Your task to perform on an android device: Open the stopwatch Image 0: 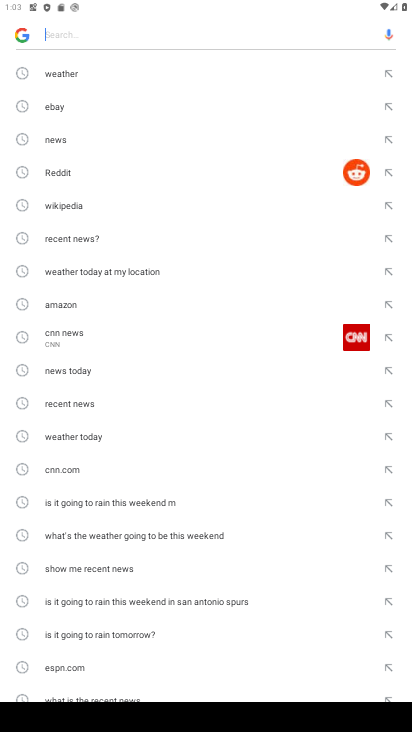
Step 0: press home button
Your task to perform on an android device: Open the stopwatch Image 1: 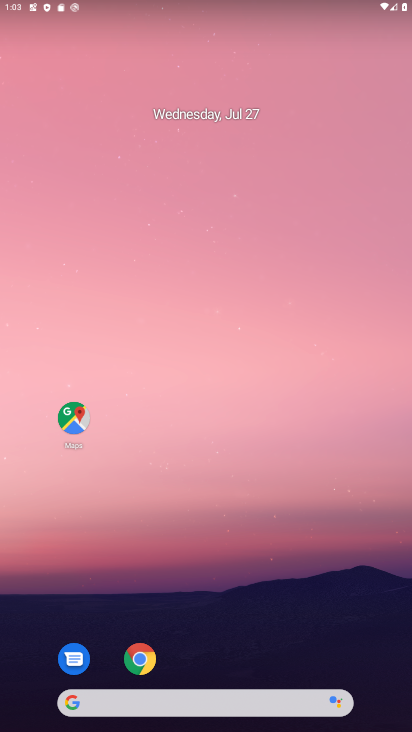
Step 1: drag from (210, 662) to (214, 78)
Your task to perform on an android device: Open the stopwatch Image 2: 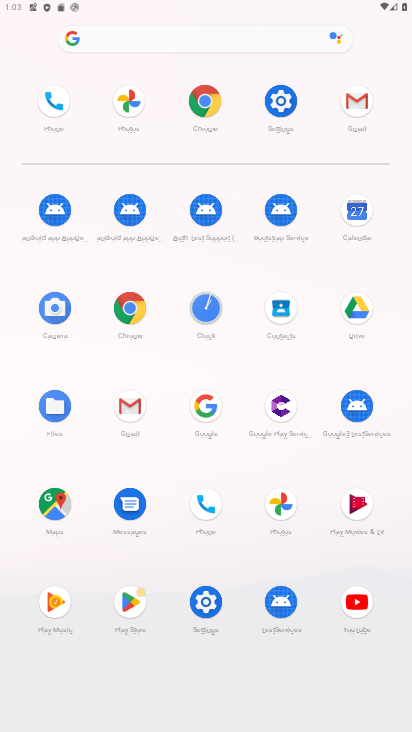
Step 2: click (209, 307)
Your task to perform on an android device: Open the stopwatch Image 3: 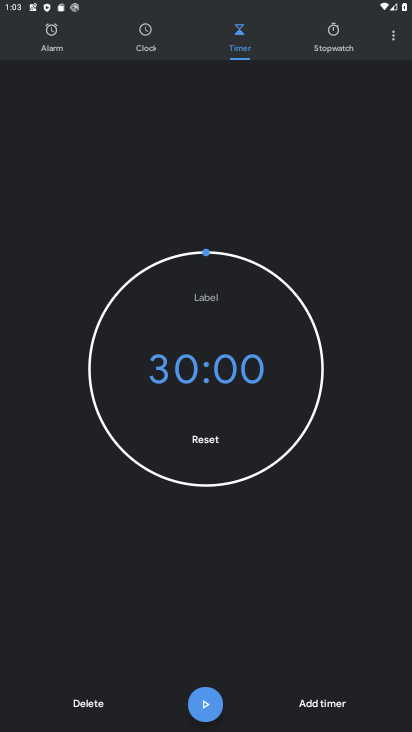
Step 3: click (329, 34)
Your task to perform on an android device: Open the stopwatch Image 4: 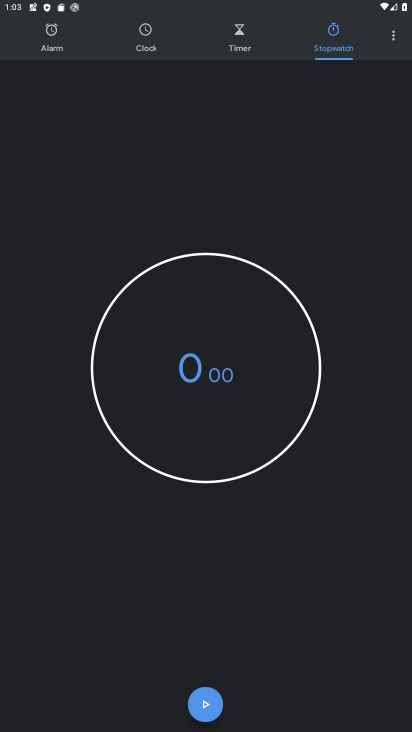
Step 4: click (205, 696)
Your task to perform on an android device: Open the stopwatch Image 5: 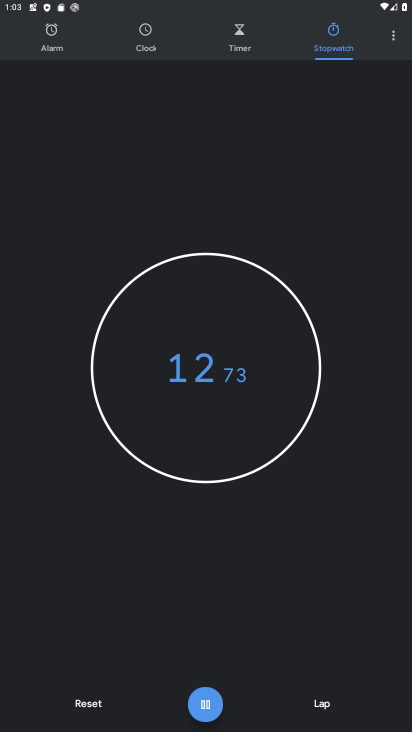
Step 5: task complete